Your task to perform on an android device: turn off smart reply in the gmail app Image 0: 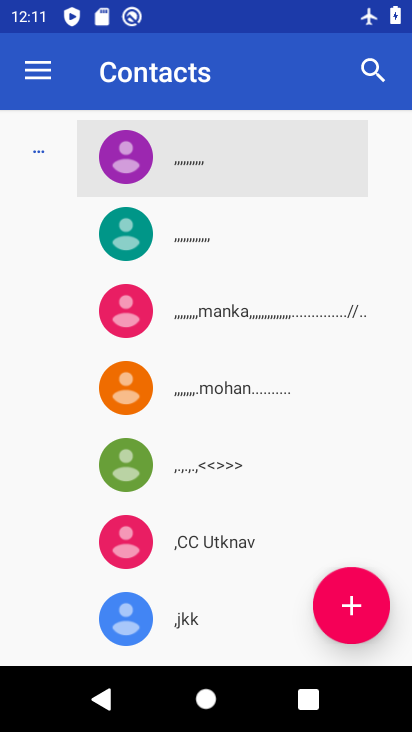
Step 0: press home button
Your task to perform on an android device: turn off smart reply in the gmail app Image 1: 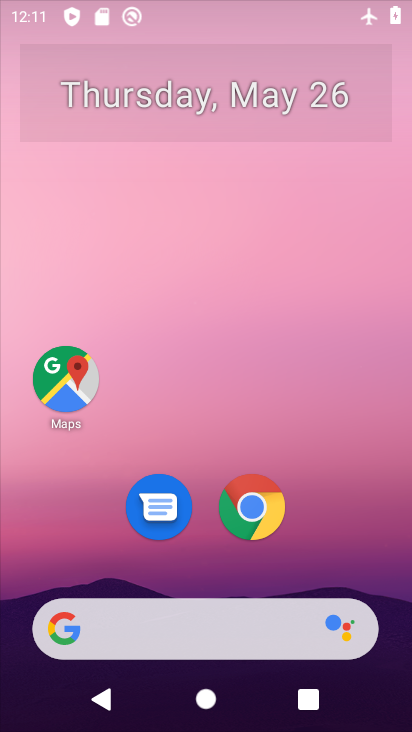
Step 1: drag from (222, 559) to (200, 189)
Your task to perform on an android device: turn off smart reply in the gmail app Image 2: 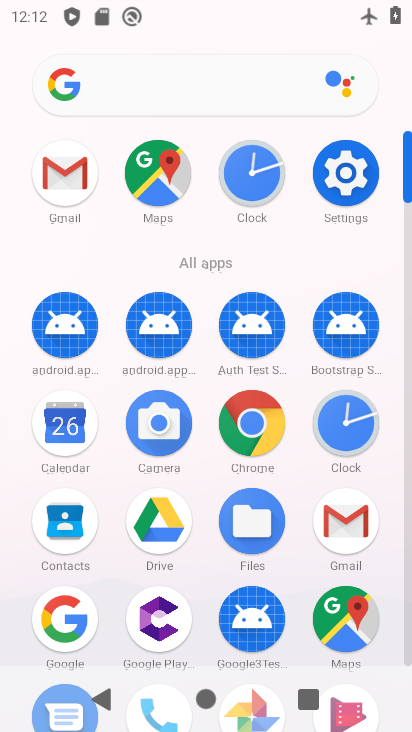
Step 2: click (81, 186)
Your task to perform on an android device: turn off smart reply in the gmail app Image 3: 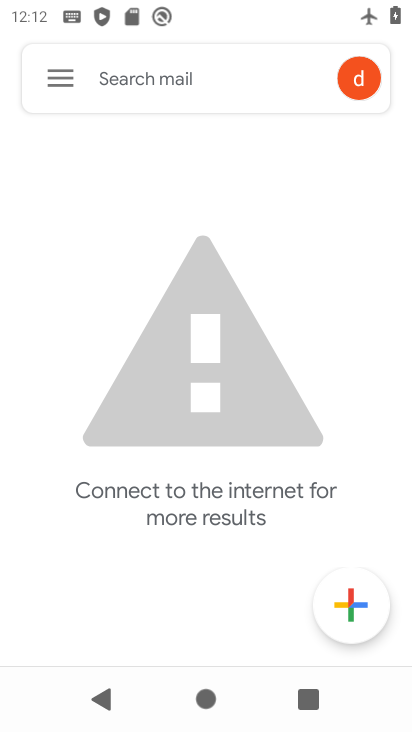
Step 3: click (57, 77)
Your task to perform on an android device: turn off smart reply in the gmail app Image 4: 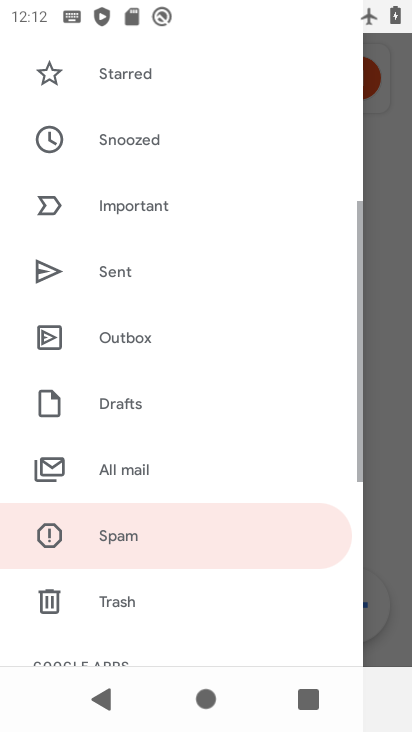
Step 4: drag from (202, 607) to (204, 208)
Your task to perform on an android device: turn off smart reply in the gmail app Image 5: 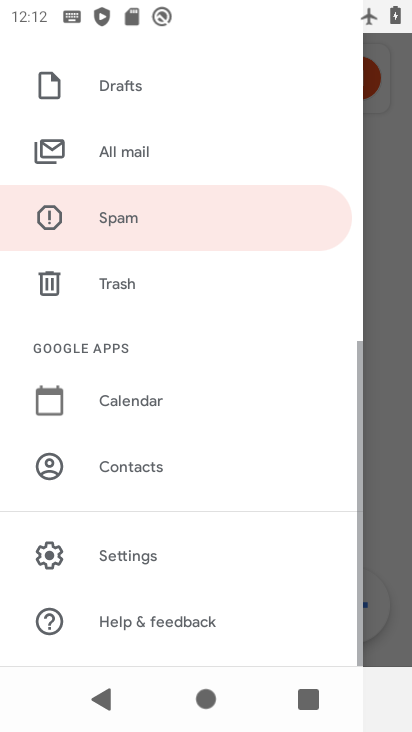
Step 5: click (140, 551)
Your task to perform on an android device: turn off smart reply in the gmail app Image 6: 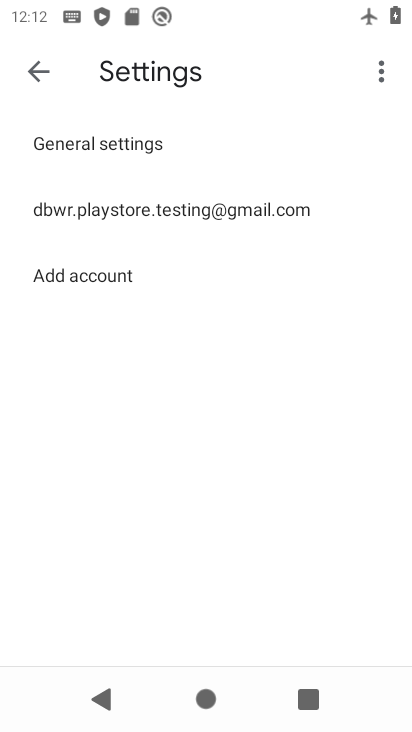
Step 6: click (117, 211)
Your task to perform on an android device: turn off smart reply in the gmail app Image 7: 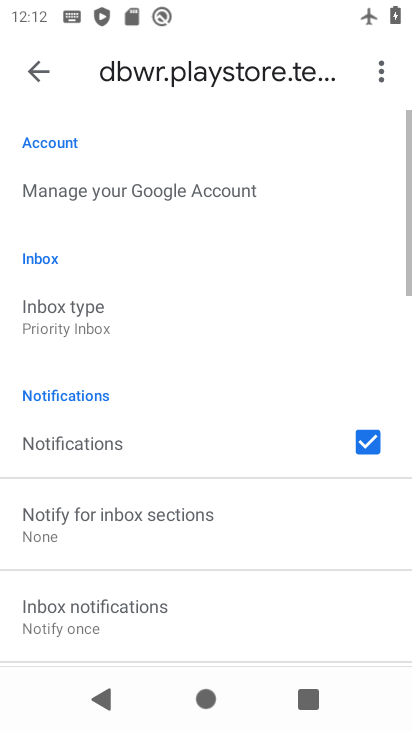
Step 7: drag from (159, 599) to (177, 256)
Your task to perform on an android device: turn off smart reply in the gmail app Image 8: 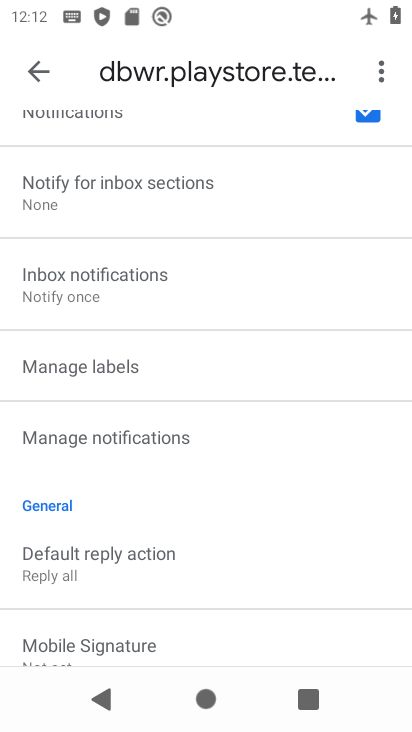
Step 8: drag from (192, 575) to (216, 220)
Your task to perform on an android device: turn off smart reply in the gmail app Image 9: 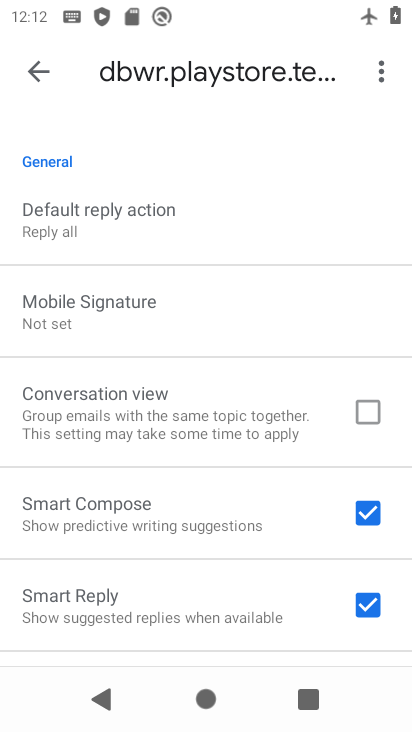
Step 9: click (366, 606)
Your task to perform on an android device: turn off smart reply in the gmail app Image 10: 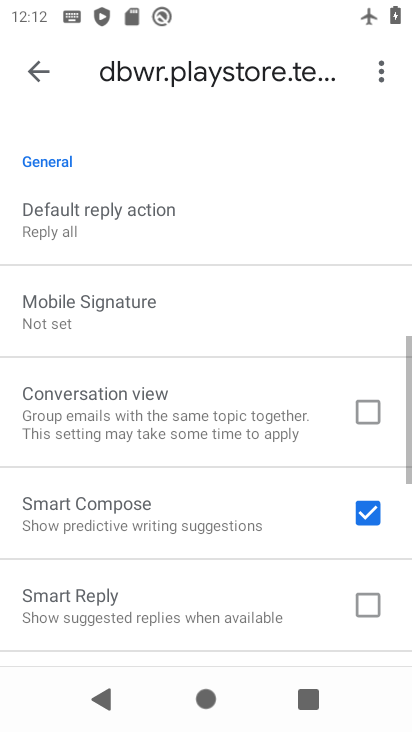
Step 10: task complete